Your task to perform on an android device: search for starred emails in the gmail app Image 0: 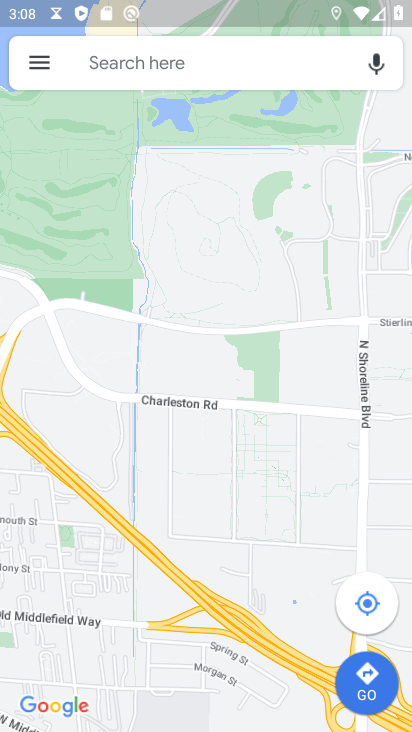
Step 0: press home button
Your task to perform on an android device: search for starred emails in the gmail app Image 1: 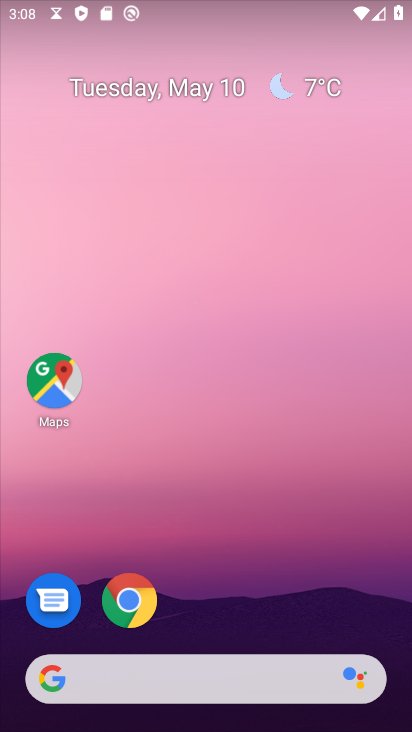
Step 1: drag from (197, 447) to (234, 124)
Your task to perform on an android device: search for starred emails in the gmail app Image 2: 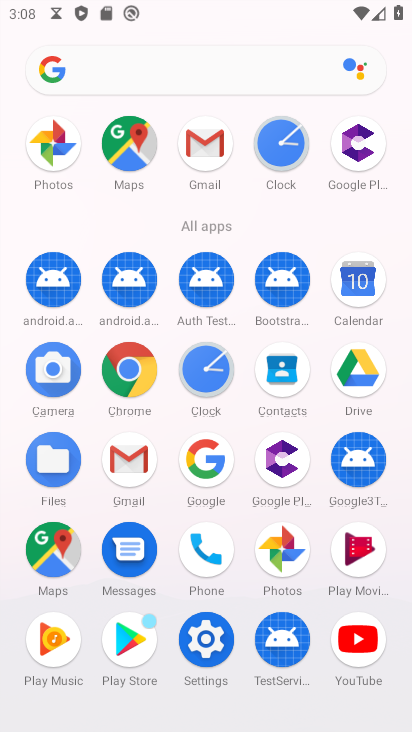
Step 2: click (190, 142)
Your task to perform on an android device: search for starred emails in the gmail app Image 3: 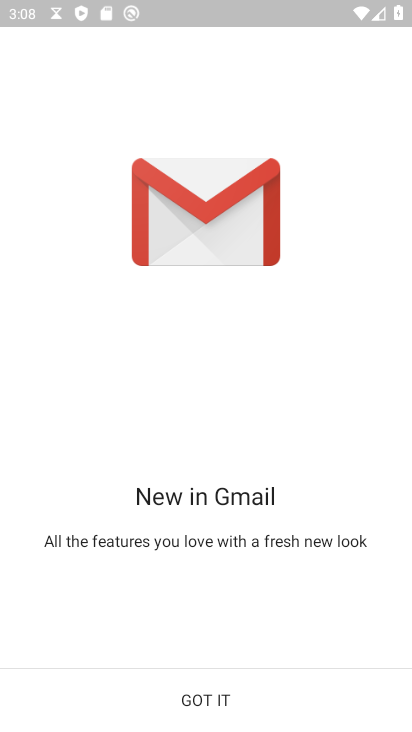
Step 3: task complete